Your task to perform on an android device: star an email in the gmail app Image 0: 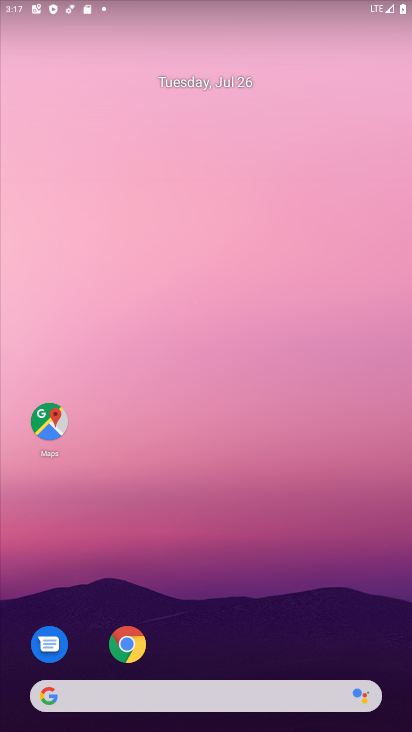
Step 0: drag from (214, 668) to (279, 65)
Your task to perform on an android device: star an email in the gmail app Image 1: 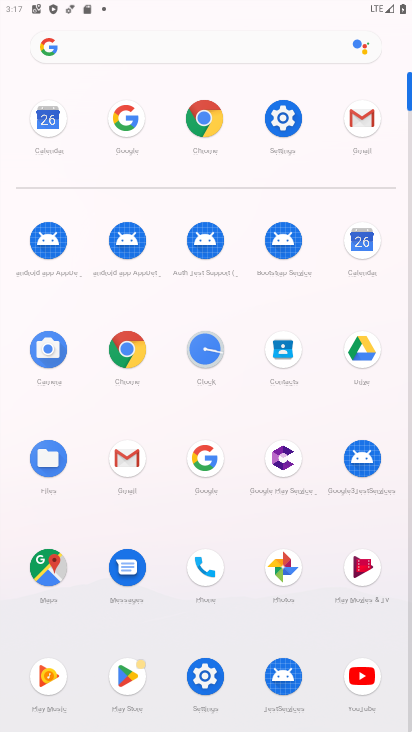
Step 1: click (359, 122)
Your task to perform on an android device: star an email in the gmail app Image 2: 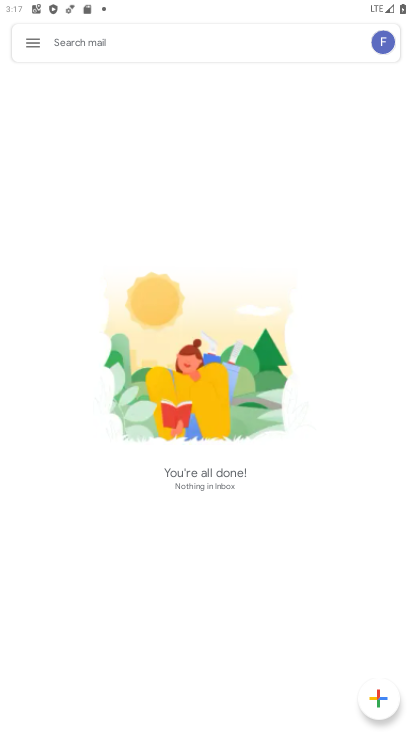
Step 2: task complete